Your task to perform on an android device: clear all cookies in the chrome app Image 0: 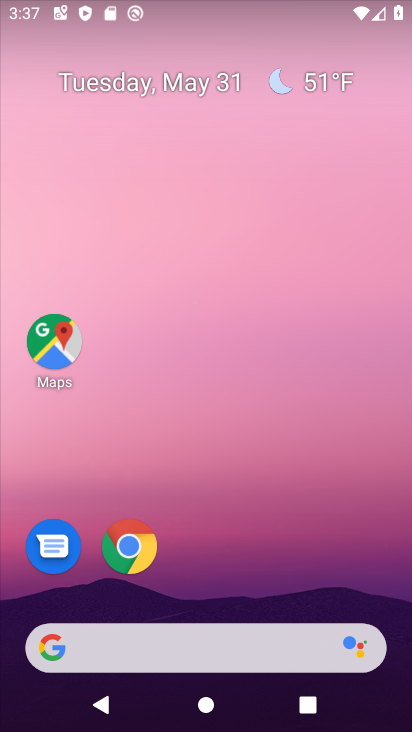
Step 0: drag from (215, 591) to (272, 171)
Your task to perform on an android device: clear all cookies in the chrome app Image 1: 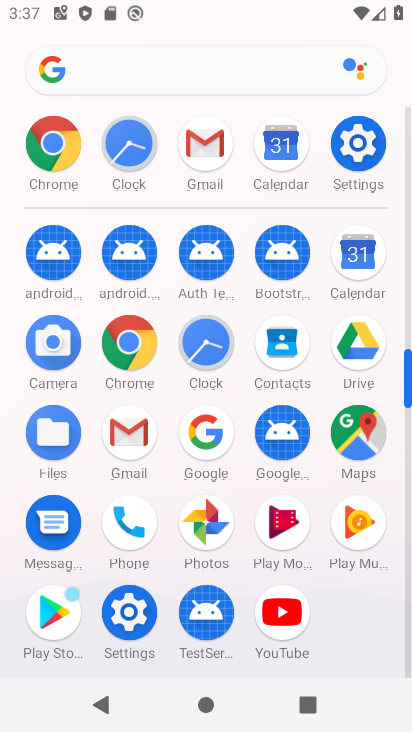
Step 1: press home button
Your task to perform on an android device: clear all cookies in the chrome app Image 2: 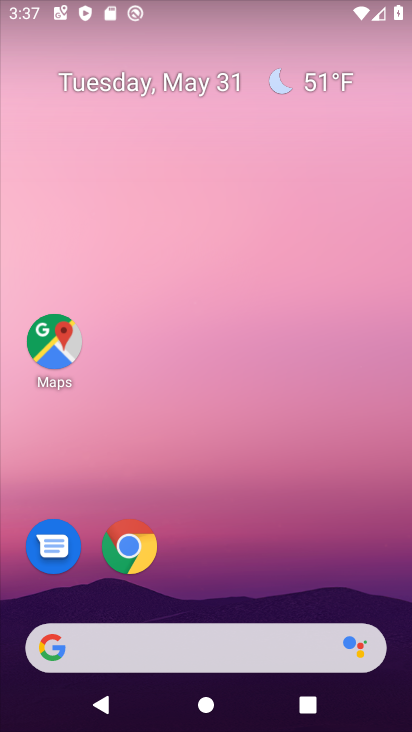
Step 2: drag from (212, 614) to (218, 241)
Your task to perform on an android device: clear all cookies in the chrome app Image 3: 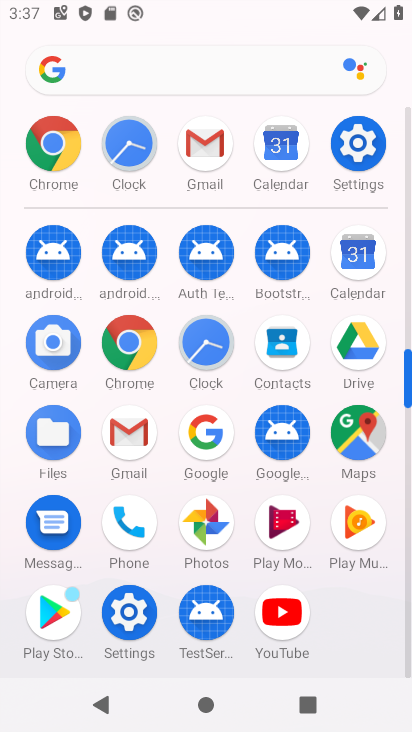
Step 3: click (127, 356)
Your task to perform on an android device: clear all cookies in the chrome app Image 4: 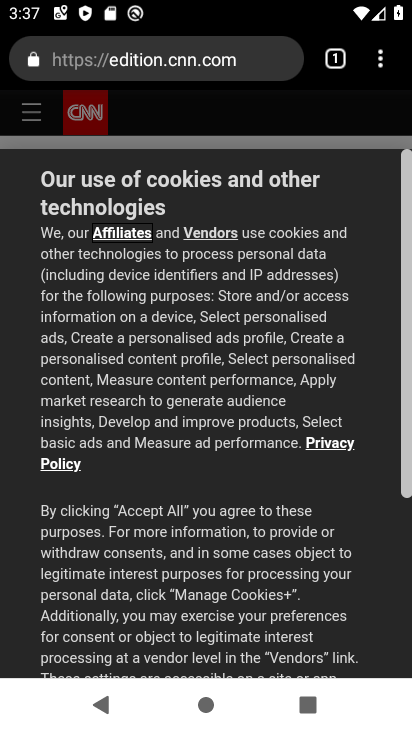
Step 4: click (378, 64)
Your task to perform on an android device: clear all cookies in the chrome app Image 5: 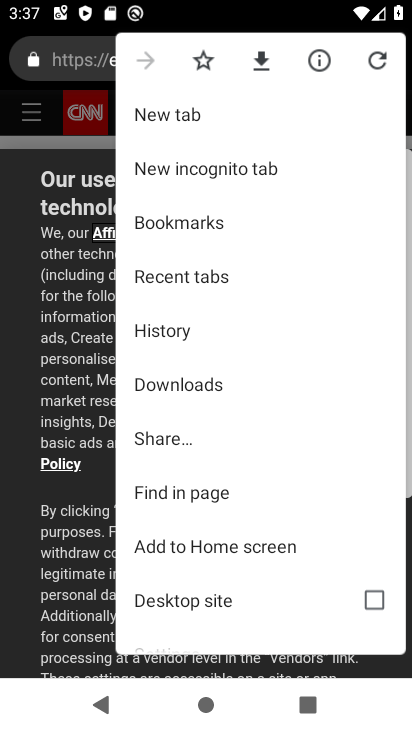
Step 5: drag from (185, 553) to (218, 256)
Your task to perform on an android device: clear all cookies in the chrome app Image 6: 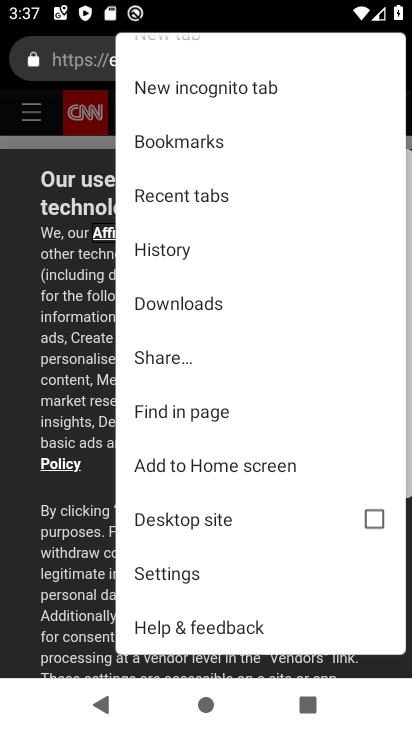
Step 6: click (194, 263)
Your task to perform on an android device: clear all cookies in the chrome app Image 7: 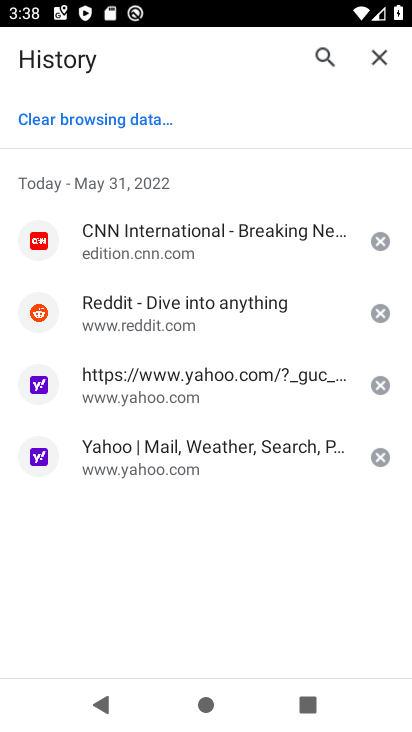
Step 7: click (135, 121)
Your task to perform on an android device: clear all cookies in the chrome app Image 8: 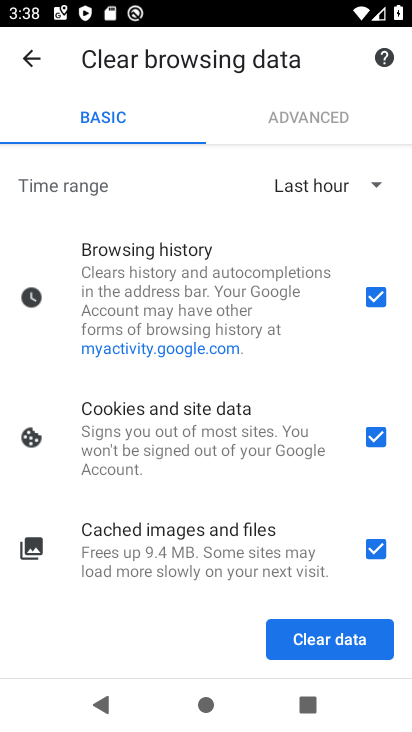
Step 8: click (373, 303)
Your task to perform on an android device: clear all cookies in the chrome app Image 9: 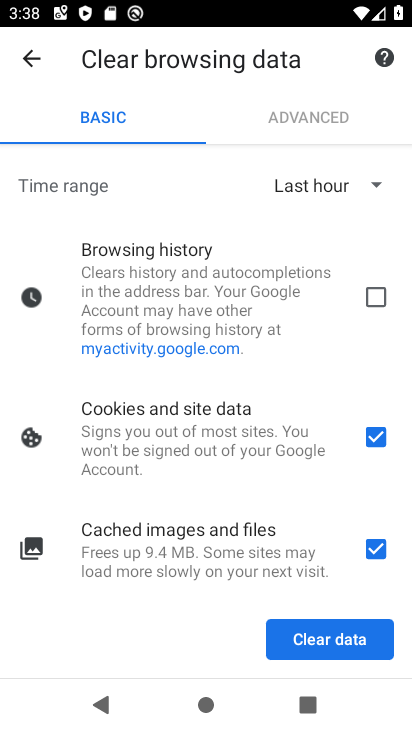
Step 9: click (377, 556)
Your task to perform on an android device: clear all cookies in the chrome app Image 10: 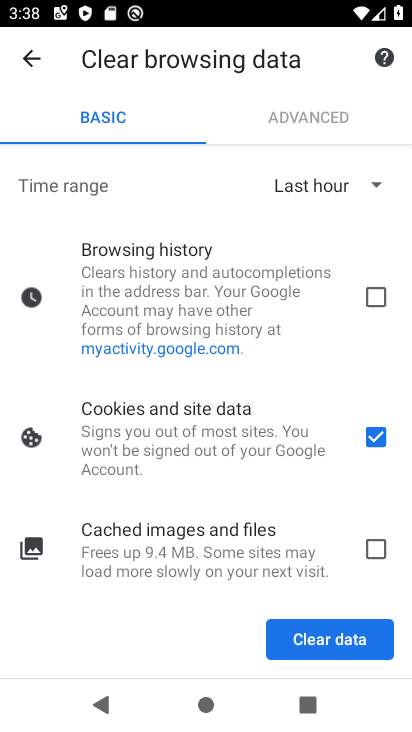
Step 10: click (326, 644)
Your task to perform on an android device: clear all cookies in the chrome app Image 11: 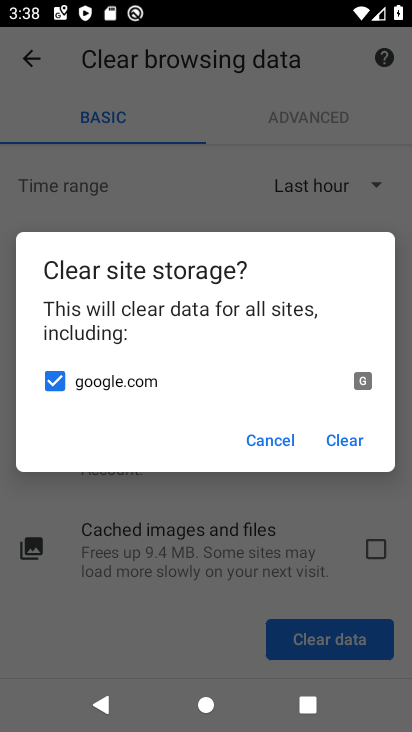
Step 11: click (341, 441)
Your task to perform on an android device: clear all cookies in the chrome app Image 12: 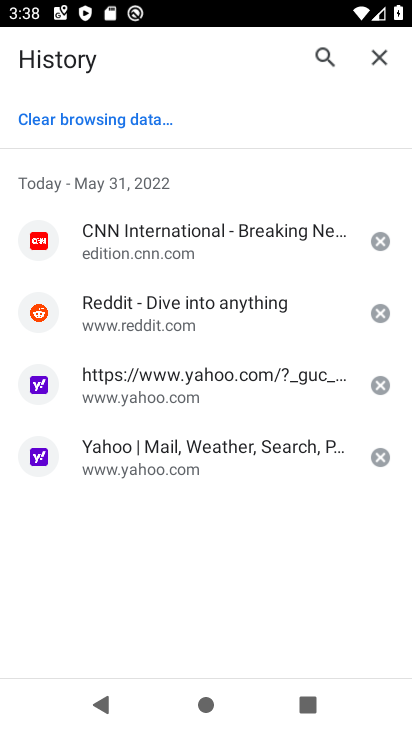
Step 12: task complete